Your task to perform on an android device: Open eBay Image 0: 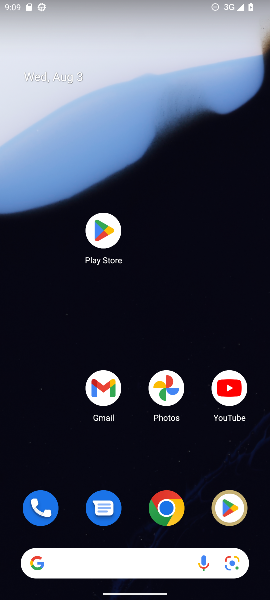
Step 0: click (158, 508)
Your task to perform on an android device: Open eBay Image 1: 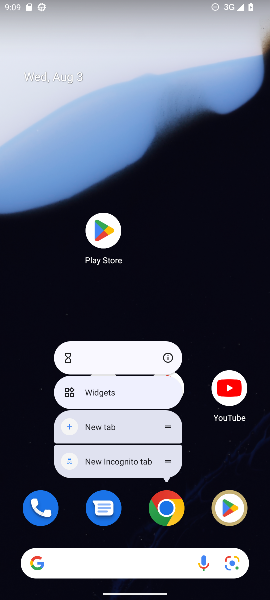
Step 1: click (165, 511)
Your task to perform on an android device: Open eBay Image 2: 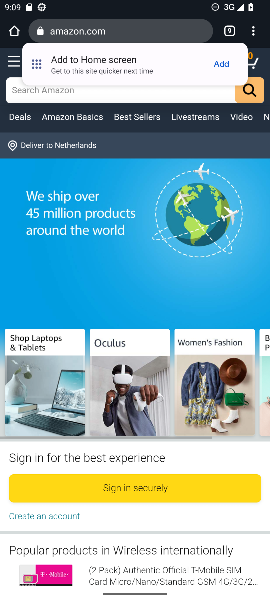
Step 2: click (217, 17)
Your task to perform on an android device: Open eBay Image 3: 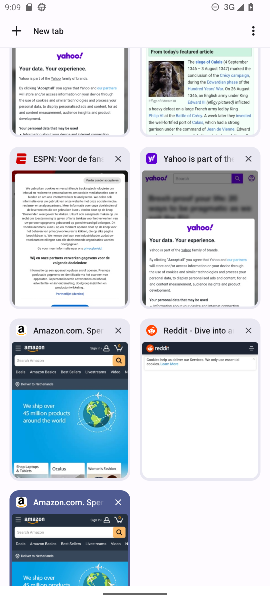
Step 3: click (22, 30)
Your task to perform on an android device: Open eBay Image 4: 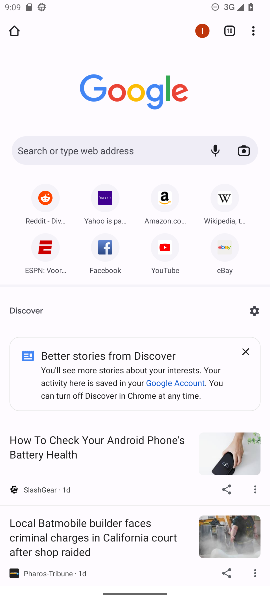
Step 4: click (226, 255)
Your task to perform on an android device: Open eBay Image 5: 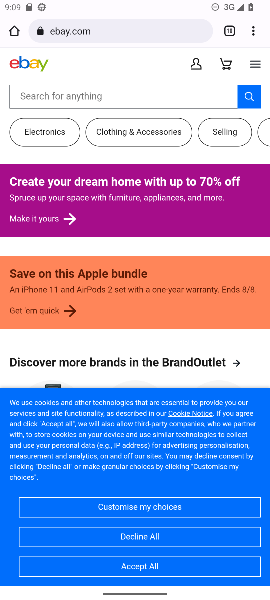
Step 5: task complete